Your task to perform on an android device: move an email to a new category in the gmail app Image 0: 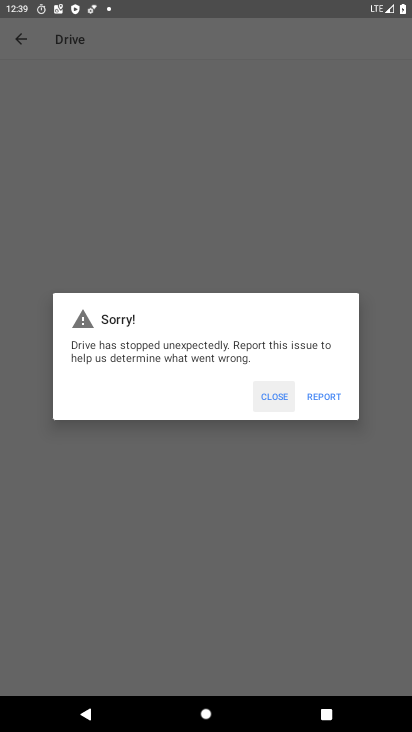
Step 0: press home button
Your task to perform on an android device: move an email to a new category in the gmail app Image 1: 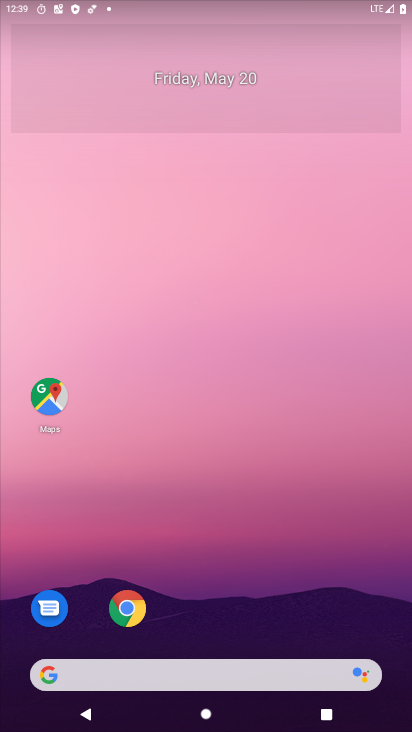
Step 1: drag from (332, 591) to (336, 81)
Your task to perform on an android device: move an email to a new category in the gmail app Image 2: 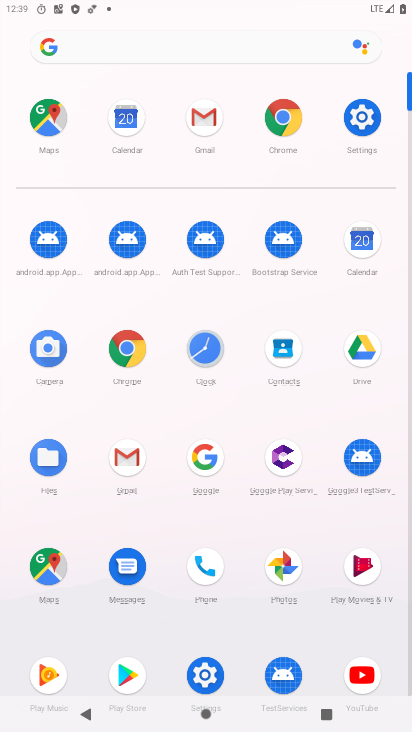
Step 2: click (128, 451)
Your task to perform on an android device: move an email to a new category in the gmail app Image 3: 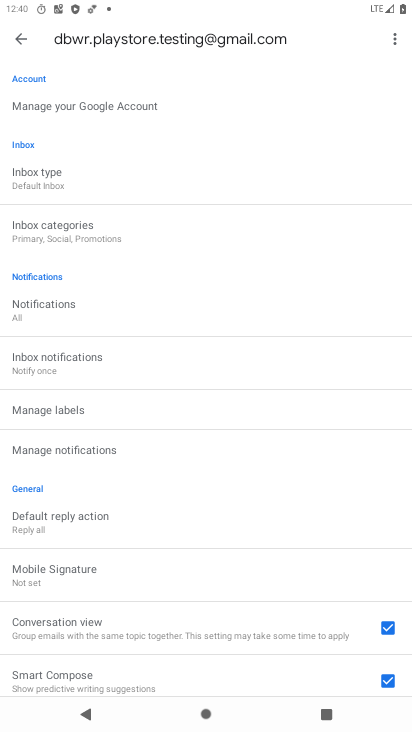
Step 3: click (15, 29)
Your task to perform on an android device: move an email to a new category in the gmail app Image 4: 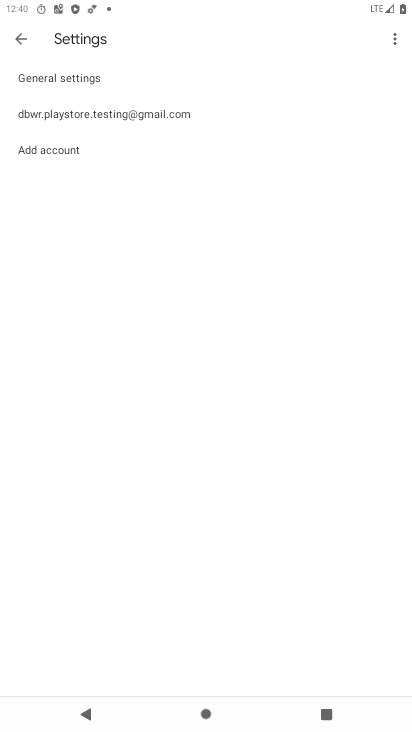
Step 4: click (169, 106)
Your task to perform on an android device: move an email to a new category in the gmail app Image 5: 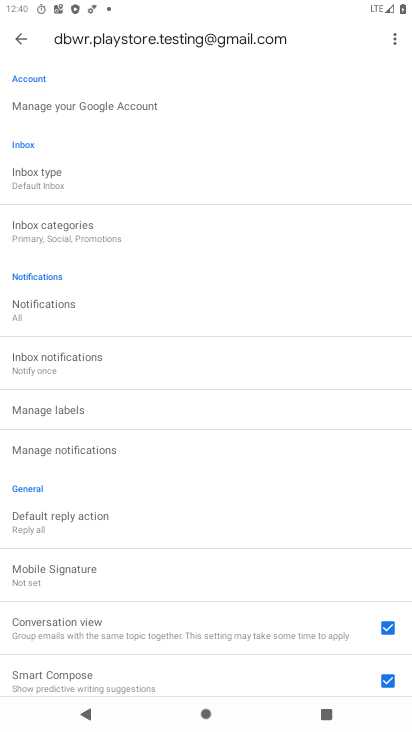
Step 5: click (22, 38)
Your task to perform on an android device: move an email to a new category in the gmail app Image 6: 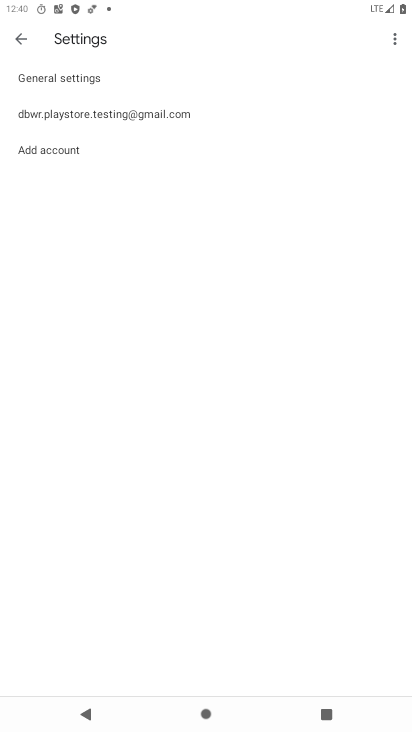
Step 6: click (22, 38)
Your task to perform on an android device: move an email to a new category in the gmail app Image 7: 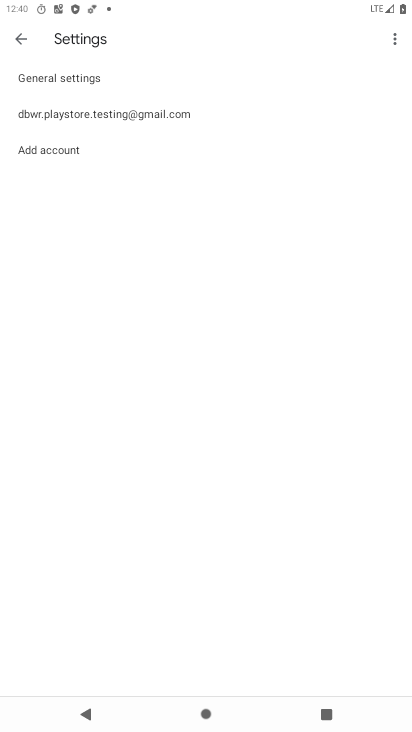
Step 7: click (19, 42)
Your task to perform on an android device: move an email to a new category in the gmail app Image 8: 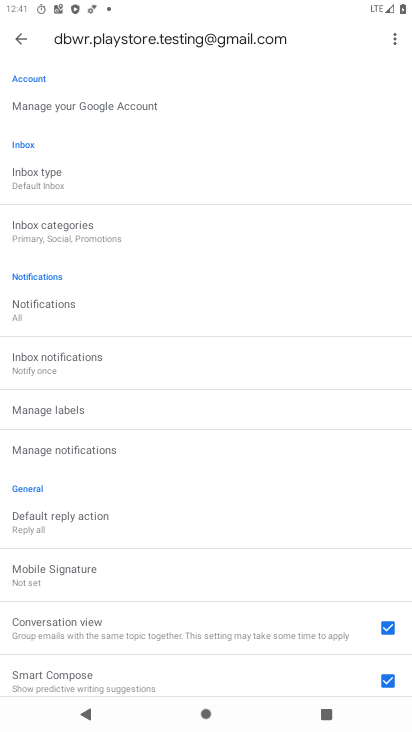
Step 8: click (15, 45)
Your task to perform on an android device: move an email to a new category in the gmail app Image 9: 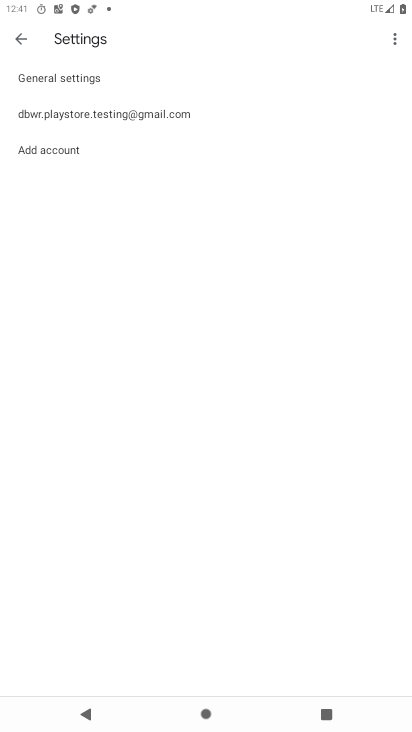
Step 9: click (15, 44)
Your task to perform on an android device: move an email to a new category in the gmail app Image 10: 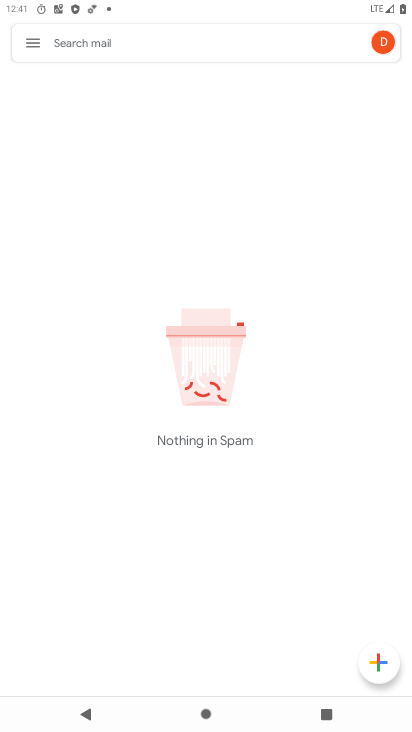
Step 10: task complete